Your task to perform on an android device: Search for a dining table on crateandbarrel.com Image 0: 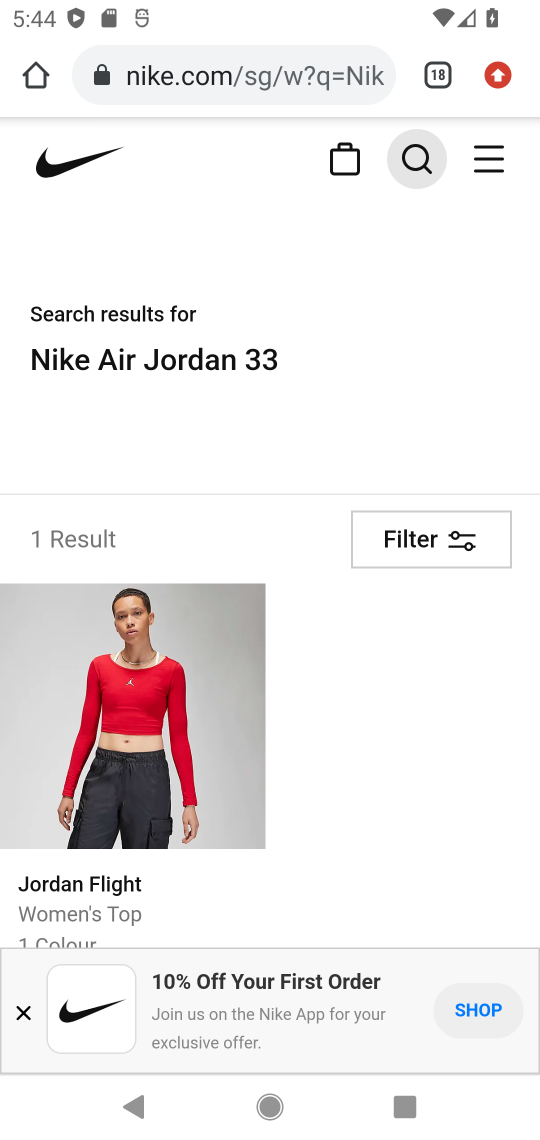
Step 0: press home button
Your task to perform on an android device: Search for a dining table on crateandbarrel.com Image 1: 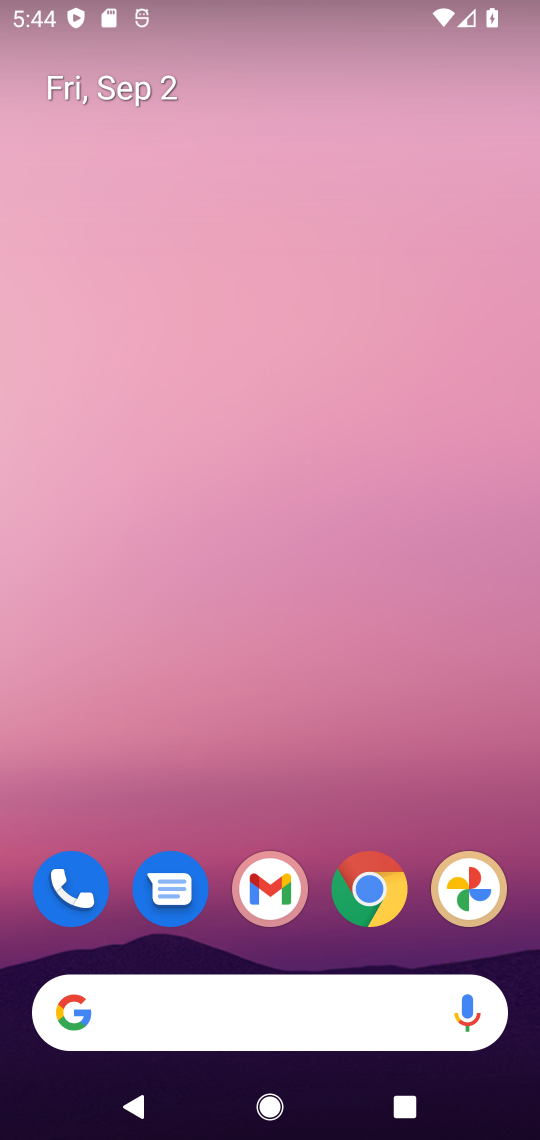
Step 1: click (282, 1004)
Your task to perform on an android device: Search for a dining table on crateandbarrel.com Image 2: 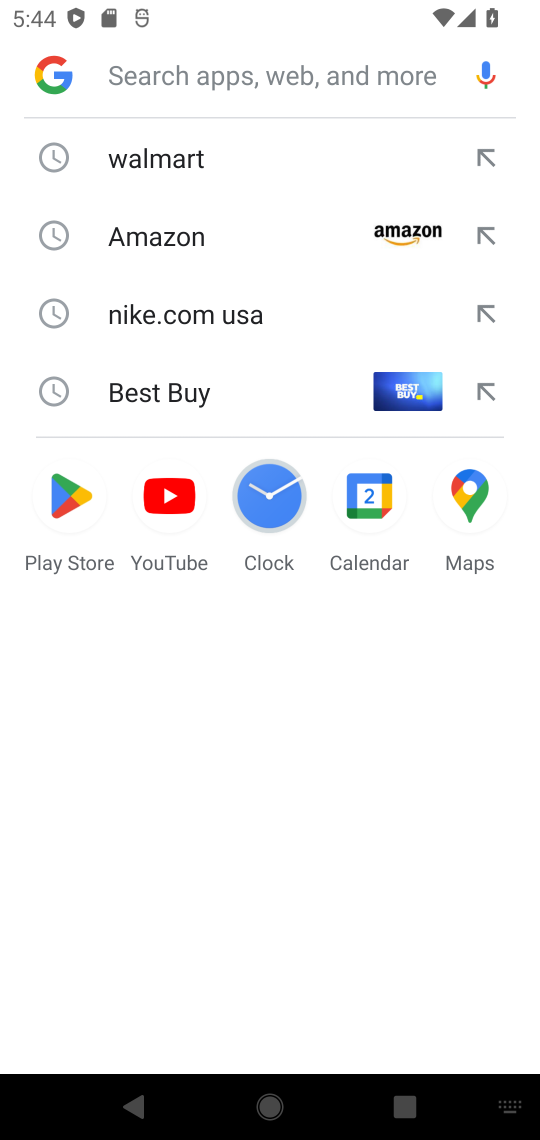
Step 2: type "crateandbarrel.com"
Your task to perform on an android device: Search for a dining table on crateandbarrel.com Image 3: 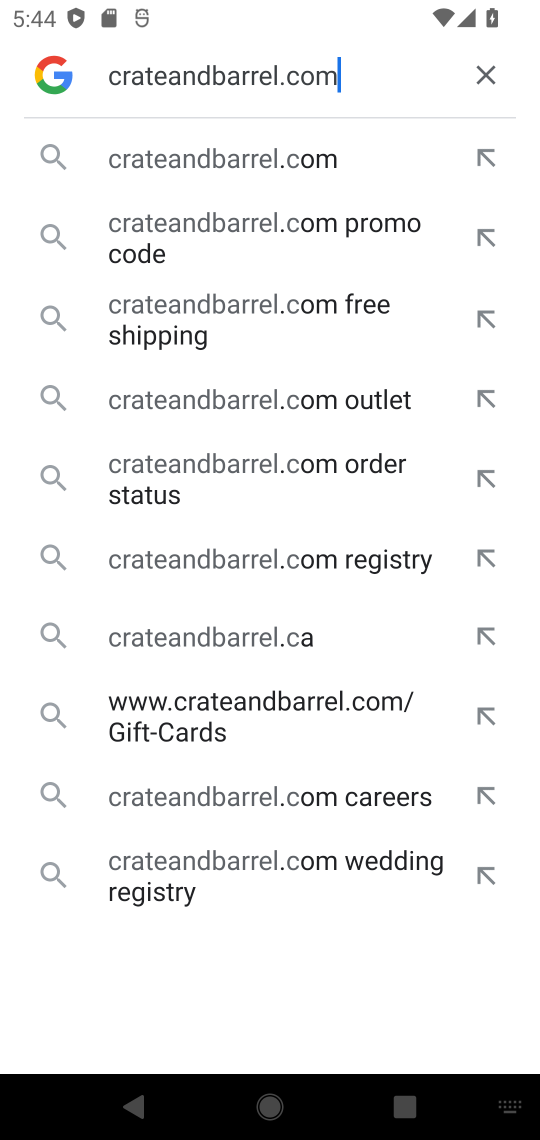
Step 3: type ""
Your task to perform on an android device: Search for a dining table on crateandbarrel.com Image 4: 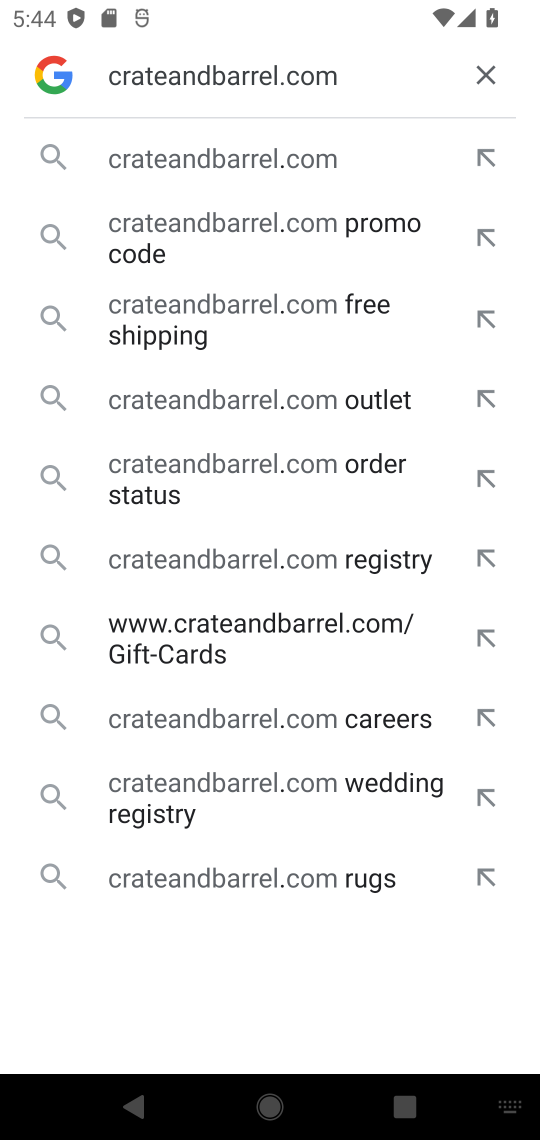
Step 4: click (258, 154)
Your task to perform on an android device: Search for a dining table on crateandbarrel.com Image 5: 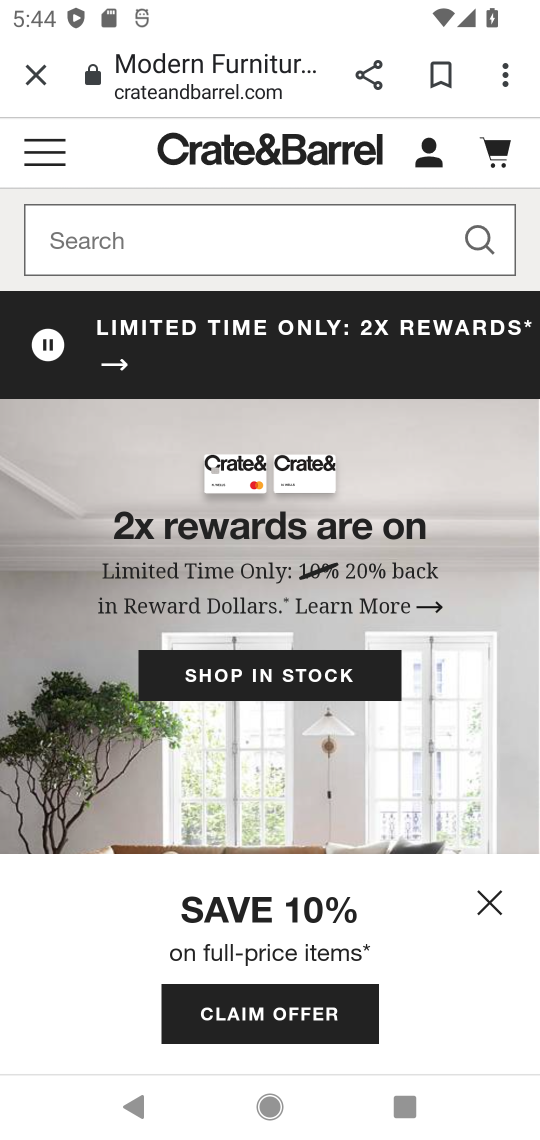
Step 5: click (263, 259)
Your task to perform on an android device: Search for a dining table on crateandbarrel.com Image 6: 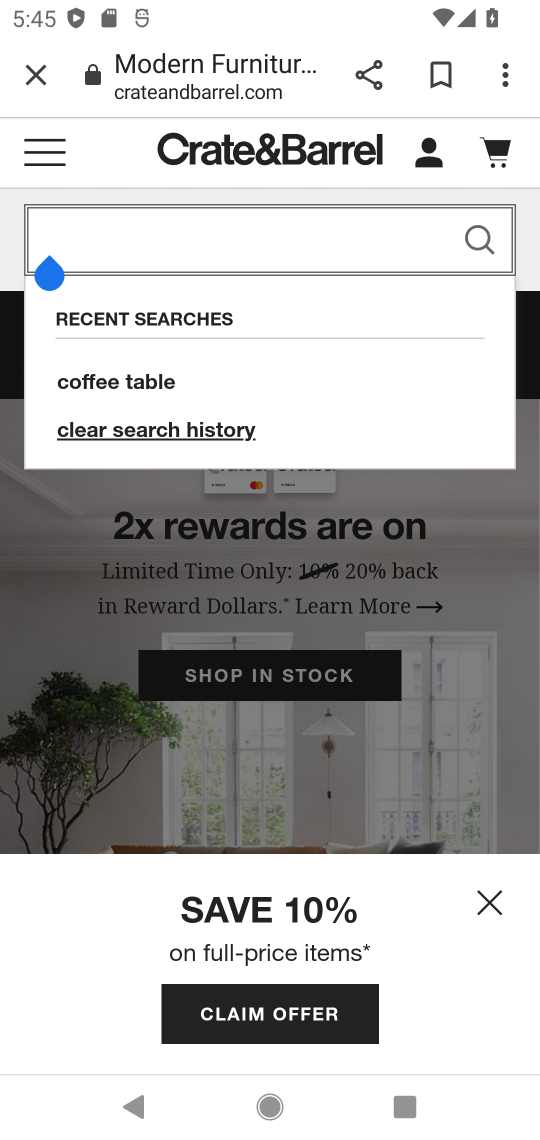
Step 6: type "dining table"
Your task to perform on an android device: Search for a dining table on crateandbarrel.com Image 7: 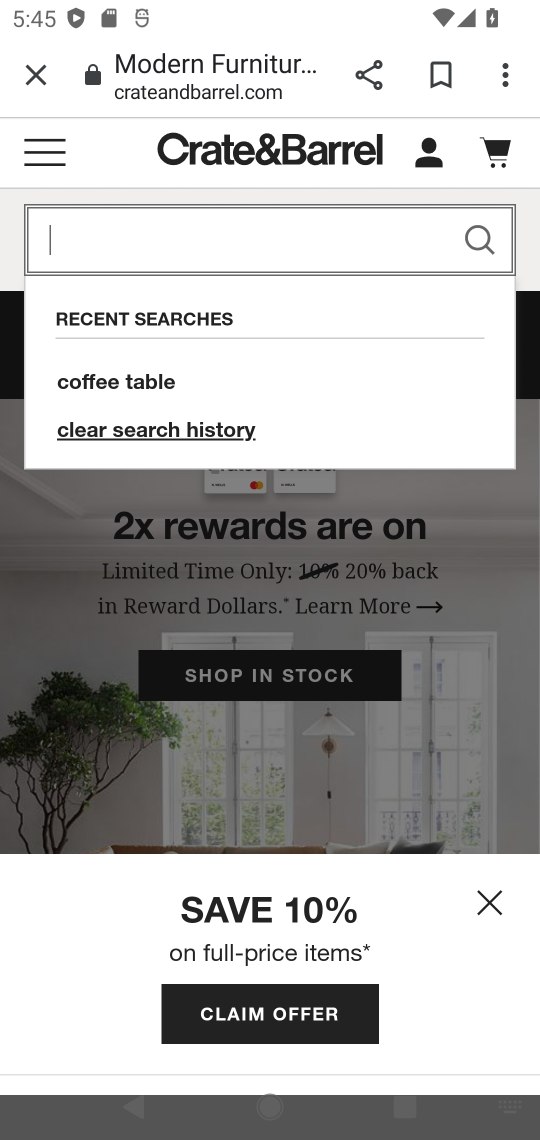
Step 7: type ""
Your task to perform on an android device: Search for a dining table on crateandbarrel.com Image 8: 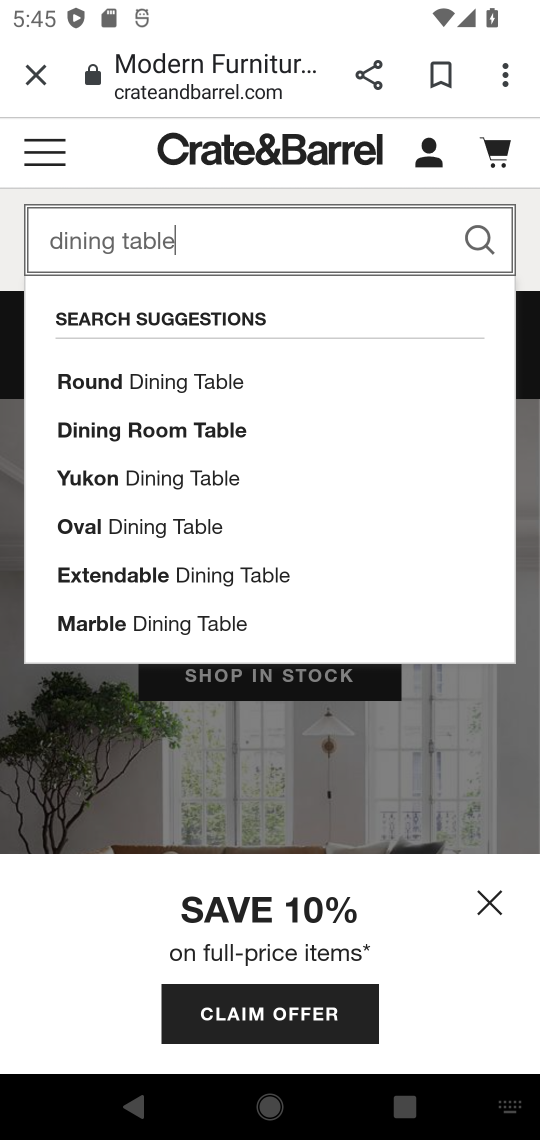
Step 8: click (478, 238)
Your task to perform on an android device: Search for a dining table on crateandbarrel.com Image 9: 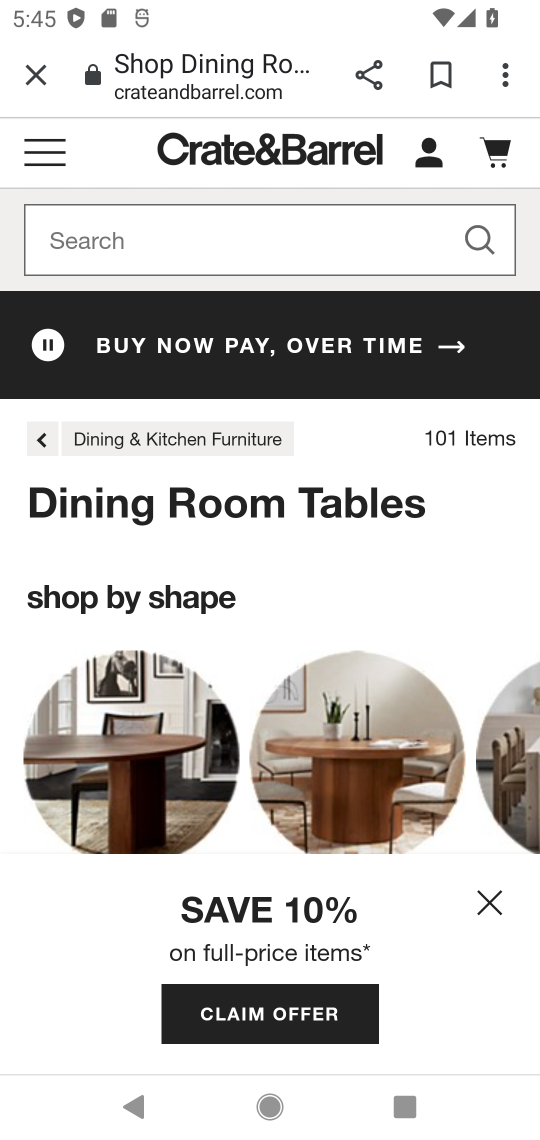
Step 9: task complete